Your task to perform on an android device: turn off location history Image 0: 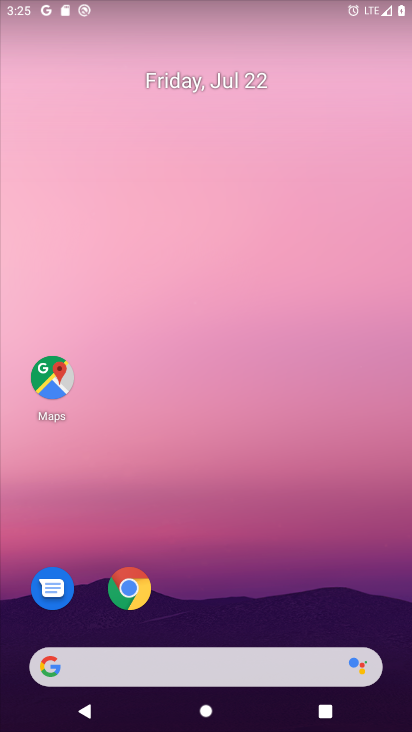
Step 0: drag from (279, 591) to (276, 243)
Your task to perform on an android device: turn off location history Image 1: 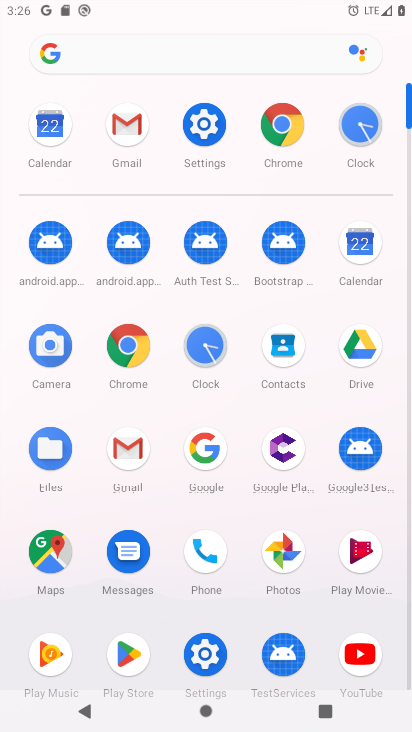
Step 1: click (50, 555)
Your task to perform on an android device: turn off location history Image 2: 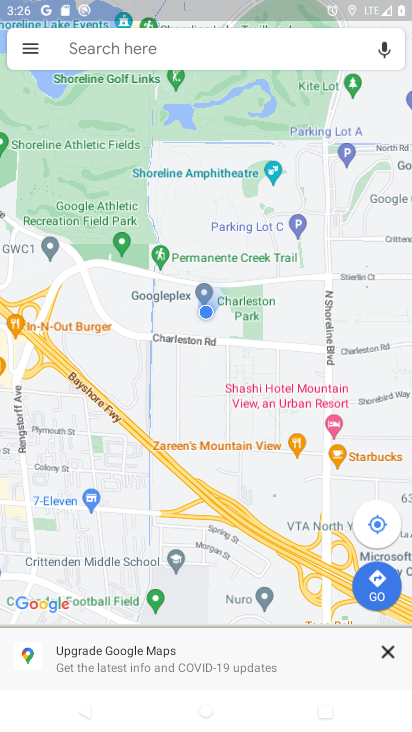
Step 2: click (32, 51)
Your task to perform on an android device: turn off location history Image 3: 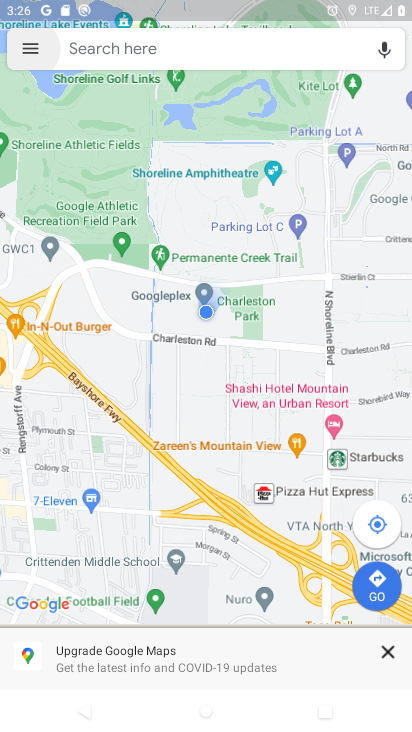
Step 3: click (32, 51)
Your task to perform on an android device: turn off location history Image 4: 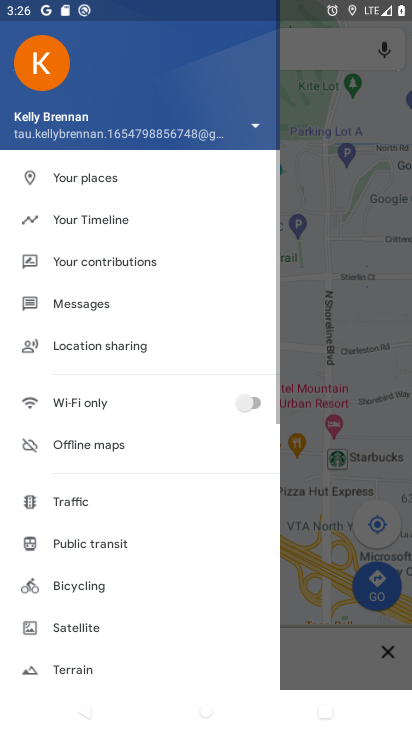
Step 4: drag from (32, 51) to (83, 220)
Your task to perform on an android device: turn off location history Image 5: 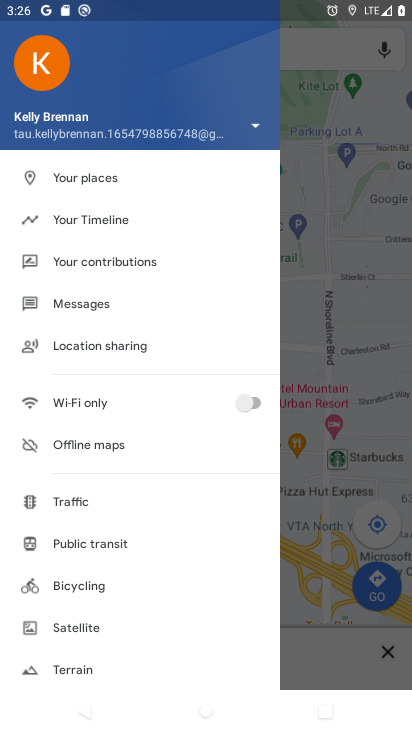
Step 5: click (83, 213)
Your task to perform on an android device: turn off location history Image 6: 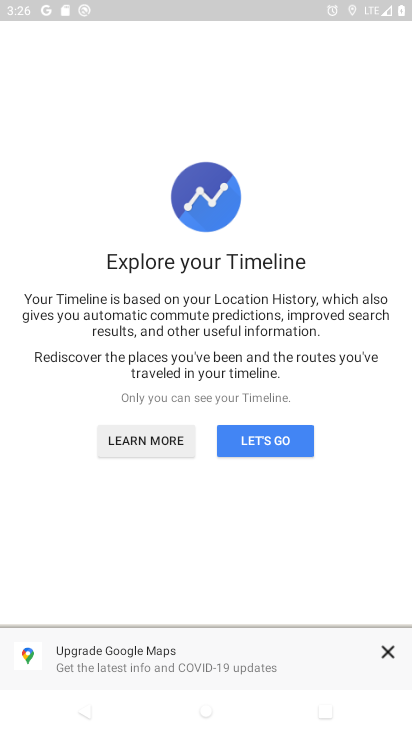
Step 6: click (277, 440)
Your task to perform on an android device: turn off location history Image 7: 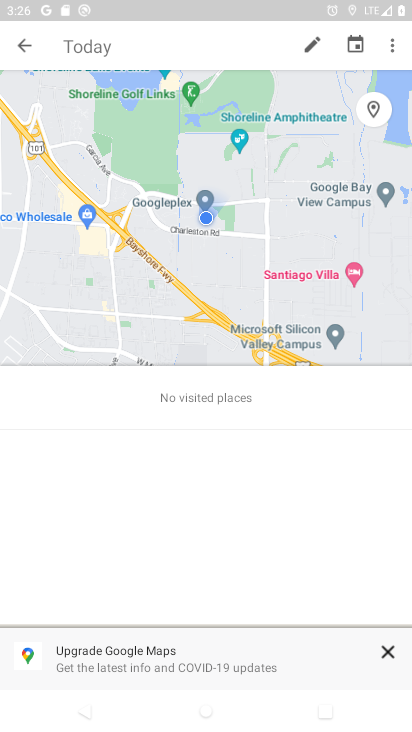
Step 7: click (391, 49)
Your task to perform on an android device: turn off location history Image 8: 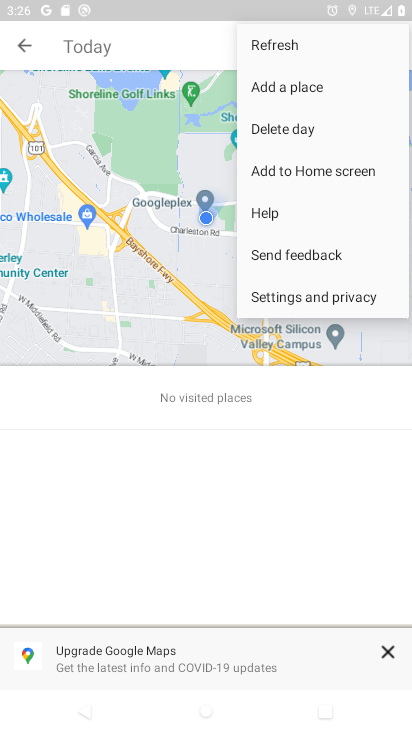
Step 8: click (300, 294)
Your task to perform on an android device: turn off location history Image 9: 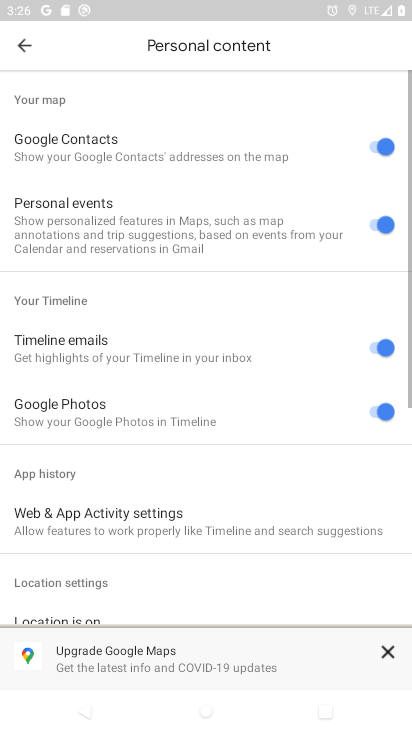
Step 9: drag from (144, 546) to (165, 139)
Your task to perform on an android device: turn off location history Image 10: 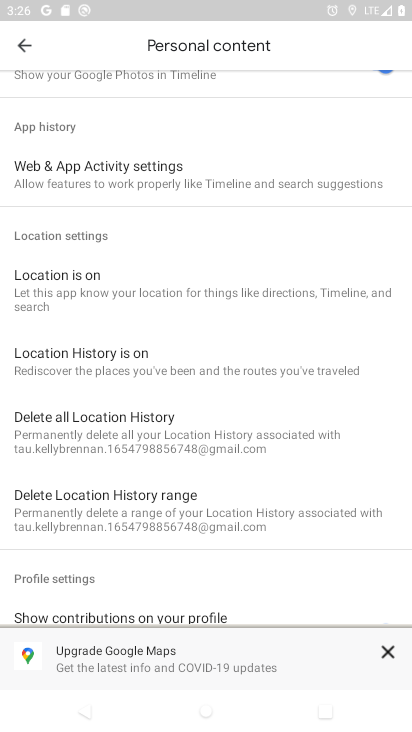
Step 10: click (83, 353)
Your task to perform on an android device: turn off location history Image 11: 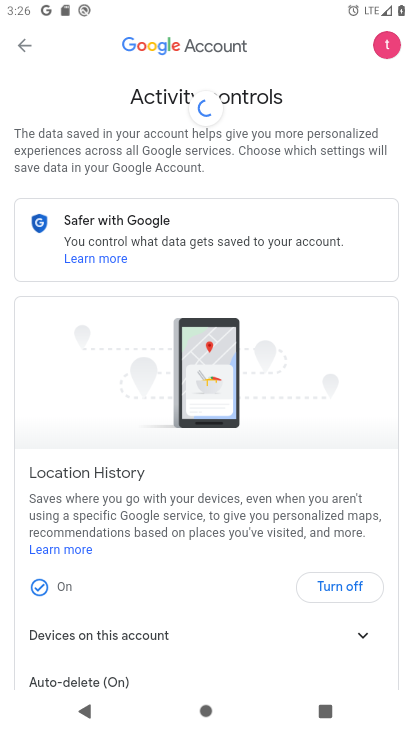
Step 11: click (350, 583)
Your task to perform on an android device: turn off location history Image 12: 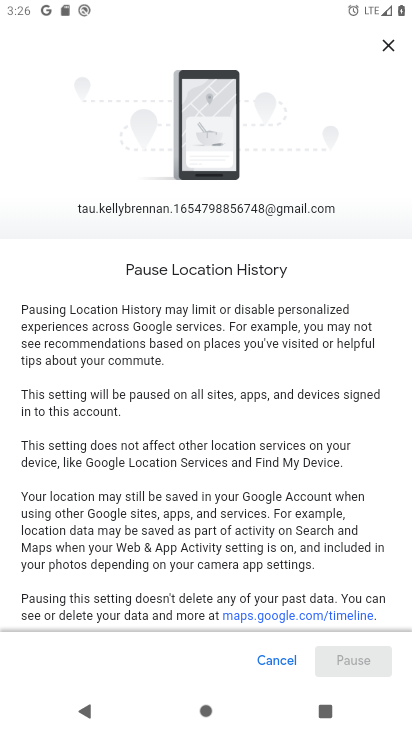
Step 12: drag from (326, 599) to (291, 159)
Your task to perform on an android device: turn off location history Image 13: 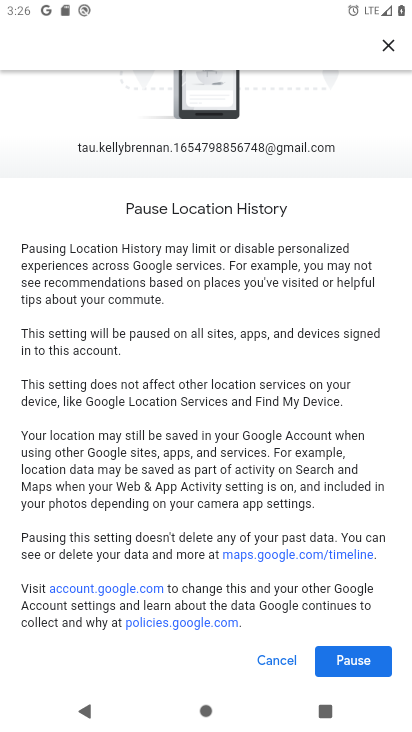
Step 13: click (354, 655)
Your task to perform on an android device: turn off location history Image 14: 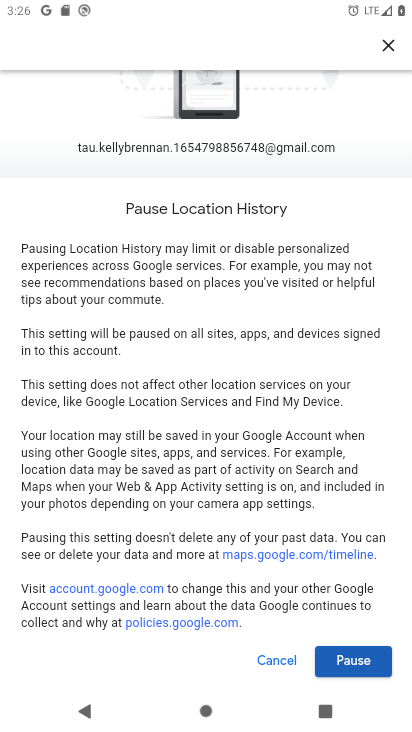
Step 14: click (360, 666)
Your task to perform on an android device: turn off location history Image 15: 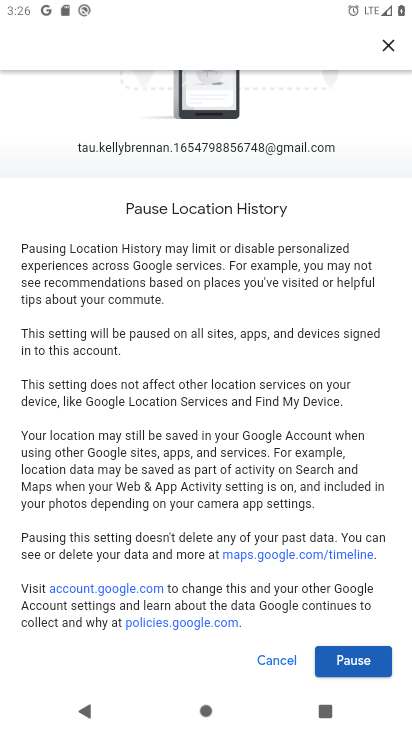
Step 15: click (360, 666)
Your task to perform on an android device: turn off location history Image 16: 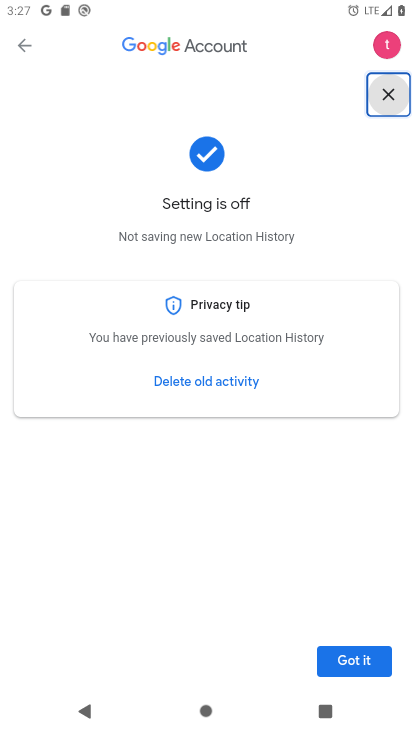
Step 16: click (340, 656)
Your task to perform on an android device: turn off location history Image 17: 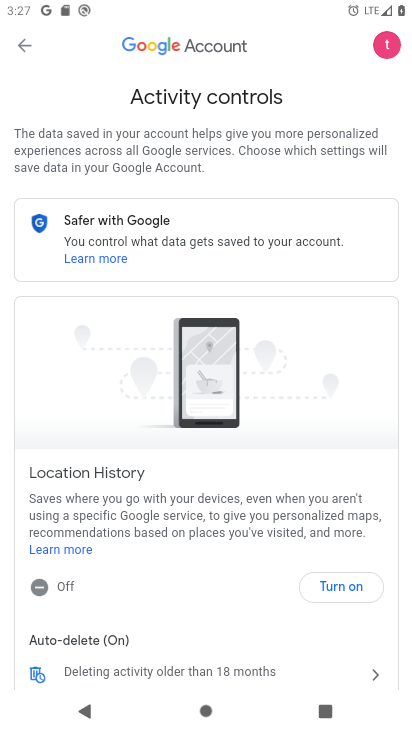
Step 17: task complete